Your task to perform on an android device: check out phone information Image 0: 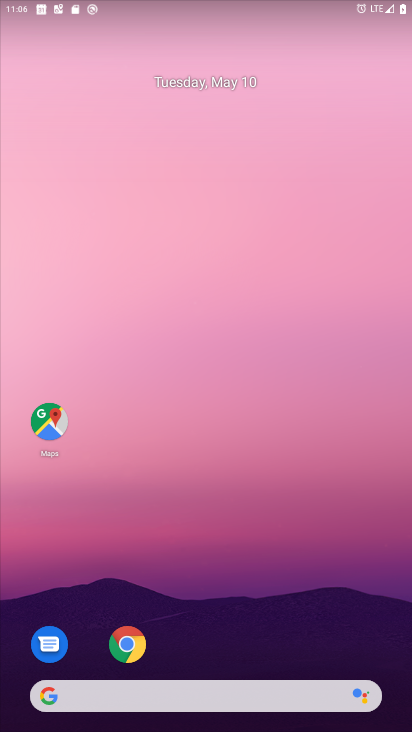
Step 0: drag from (236, 556) to (281, 153)
Your task to perform on an android device: check out phone information Image 1: 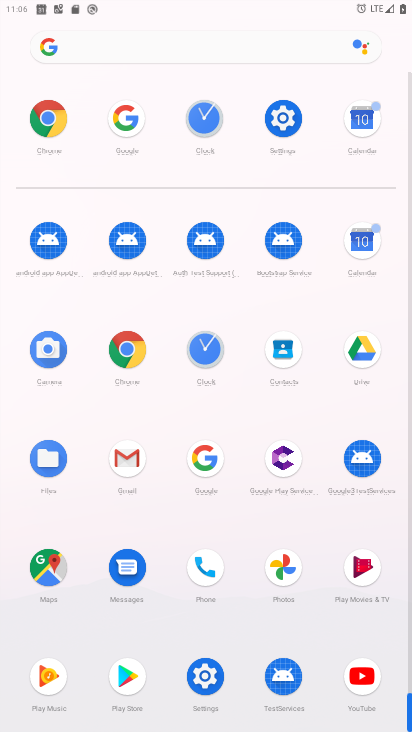
Step 1: click (289, 126)
Your task to perform on an android device: check out phone information Image 2: 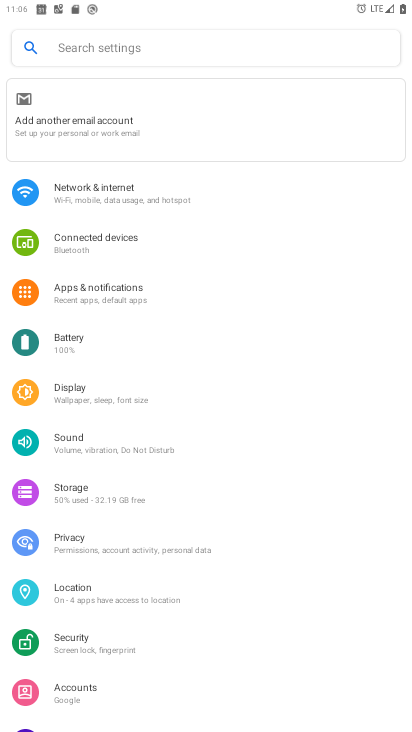
Step 2: drag from (220, 566) to (284, 95)
Your task to perform on an android device: check out phone information Image 3: 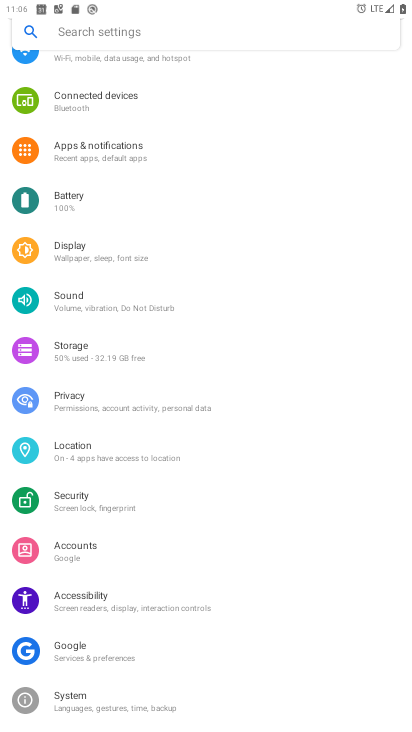
Step 3: drag from (193, 481) to (257, 111)
Your task to perform on an android device: check out phone information Image 4: 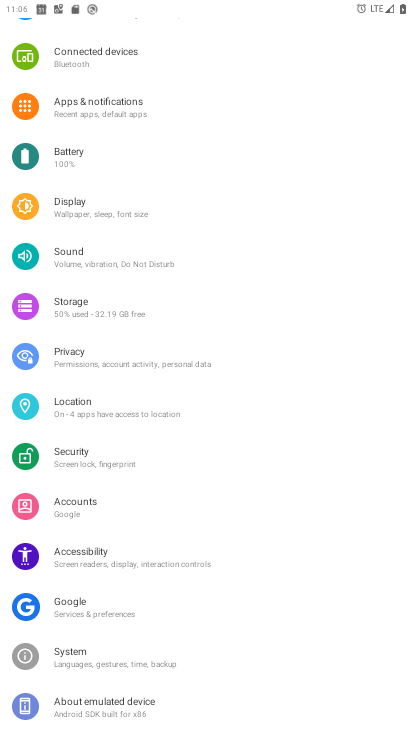
Step 4: click (101, 690)
Your task to perform on an android device: check out phone information Image 5: 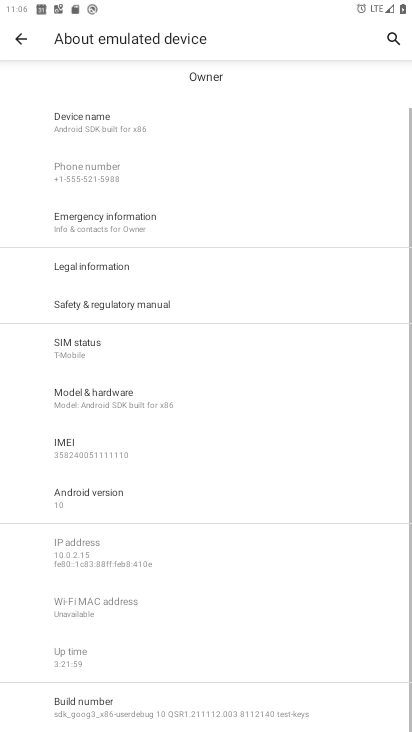
Step 5: task complete